Your task to perform on an android device: Open Youtube and go to the subscriptions tab Image 0: 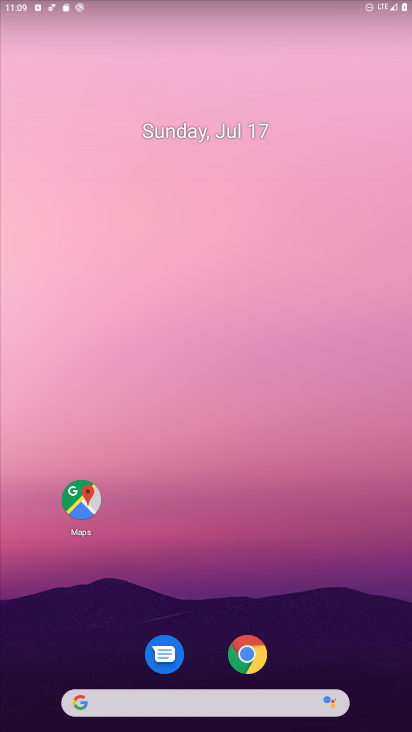
Step 0: drag from (194, 521) to (194, 80)
Your task to perform on an android device: Open Youtube and go to the subscriptions tab Image 1: 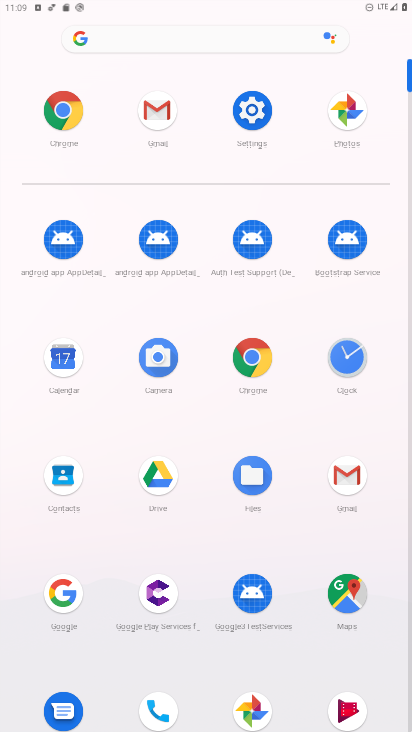
Step 1: drag from (279, 642) to (274, 165)
Your task to perform on an android device: Open Youtube and go to the subscriptions tab Image 2: 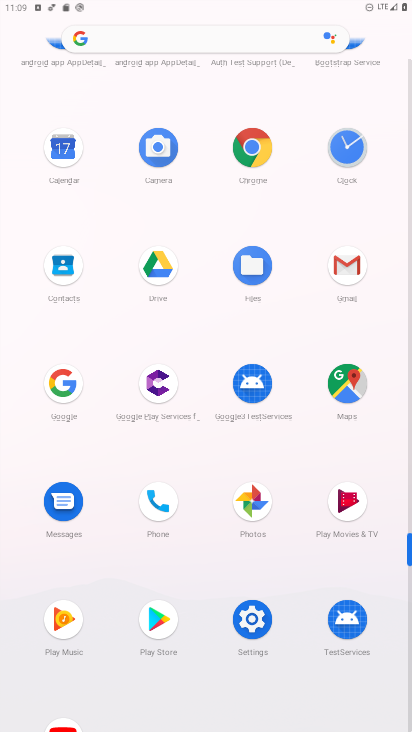
Step 2: drag from (131, 688) to (176, 288)
Your task to perform on an android device: Open Youtube and go to the subscriptions tab Image 3: 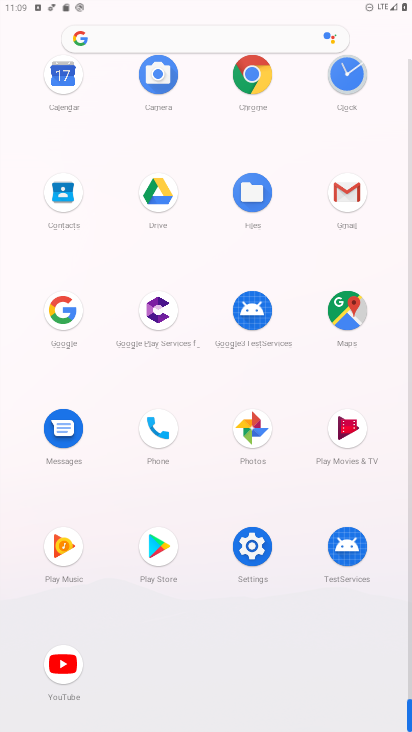
Step 3: click (68, 662)
Your task to perform on an android device: Open Youtube and go to the subscriptions tab Image 4: 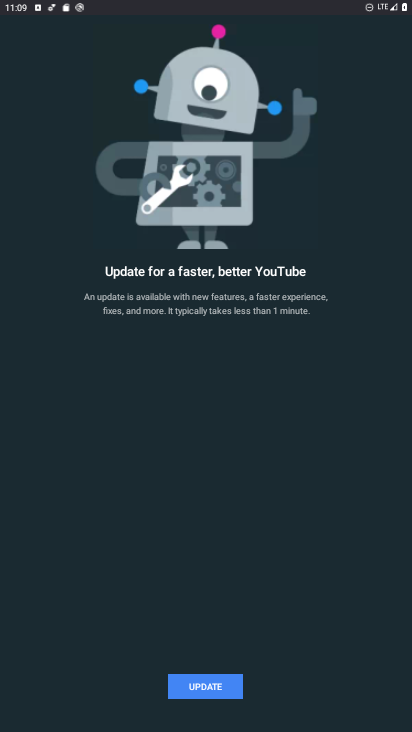
Step 4: click (223, 675)
Your task to perform on an android device: Open Youtube and go to the subscriptions tab Image 5: 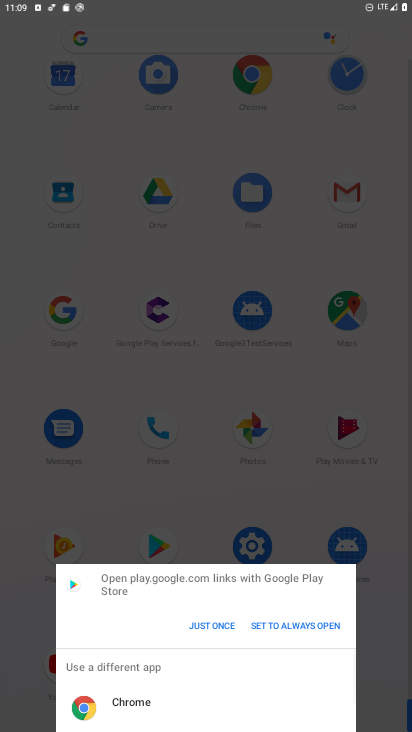
Step 5: click (198, 621)
Your task to perform on an android device: Open Youtube and go to the subscriptions tab Image 6: 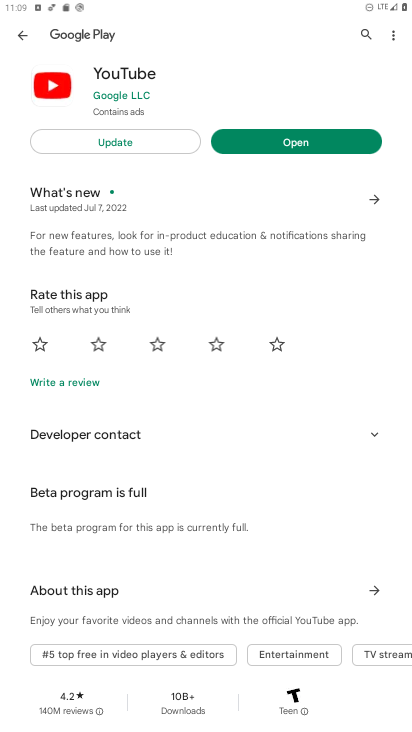
Step 6: click (157, 146)
Your task to perform on an android device: Open Youtube and go to the subscriptions tab Image 7: 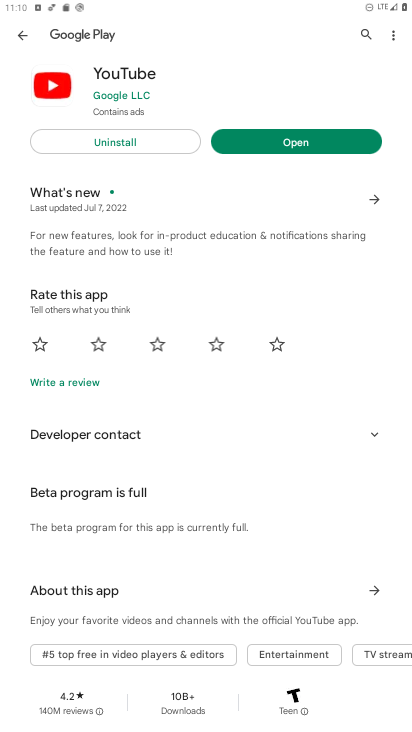
Step 7: click (330, 149)
Your task to perform on an android device: Open Youtube and go to the subscriptions tab Image 8: 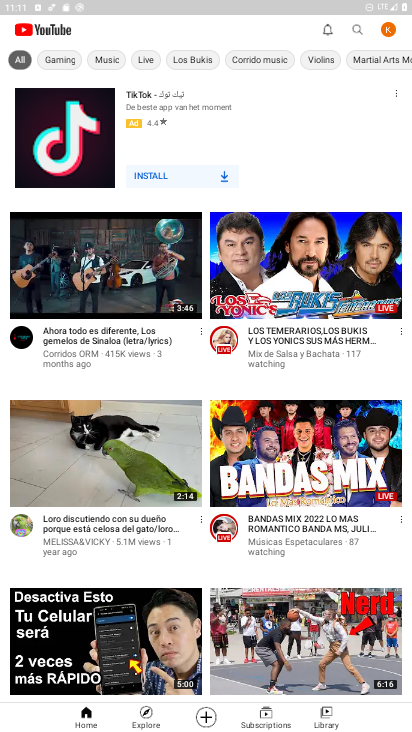
Step 8: click (268, 720)
Your task to perform on an android device: Open Youtube and go to the subscriptions tab Image 9: 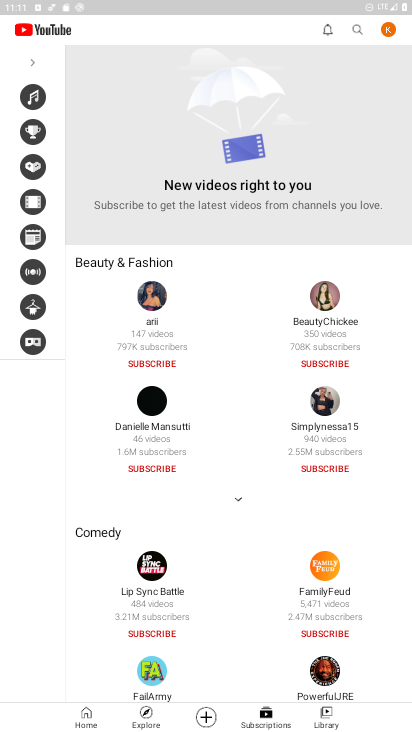
Step 9: task complete